Your task to perform on an android device: turn on priority inbox in the gmail app Image 0: 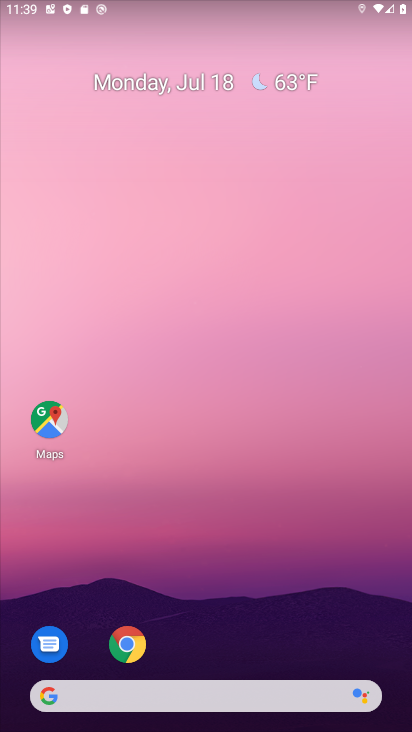
Step 0: drag from (220, 693) to (229, 183)
Your task to perform on an android device: turn on priority inbox in the gmail app Image 1: 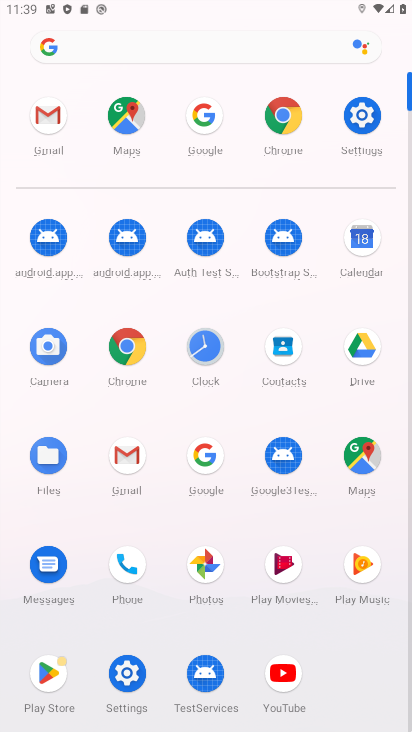
Step 1: click (123, 454)
Your task to perform on an android device: turn on priority inbox in the gmail app Image 2: 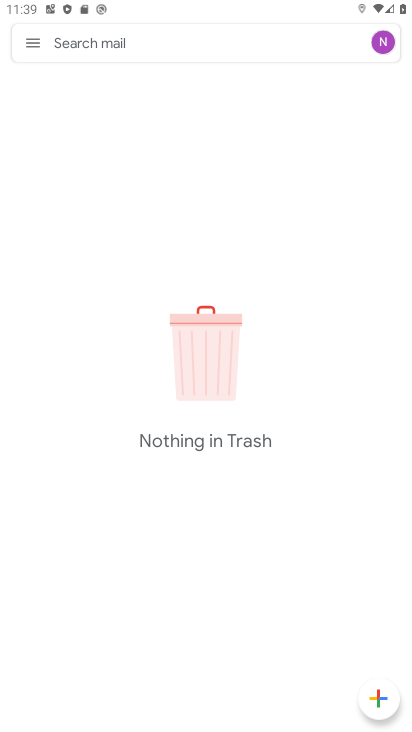
Step 2: click (32, 47)
Your task to perform on an android device: turn on priority inbox in the gmail app Image 3: 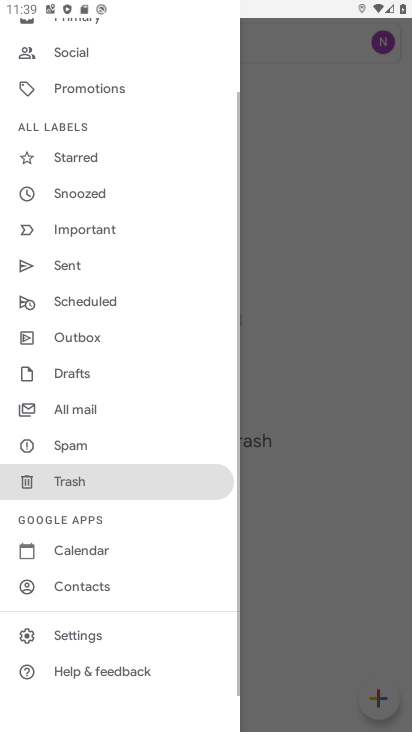
Step 3: click (88, 636)
Your task to perform on an android device: turn on priority inbox in the gmail app Image 4: 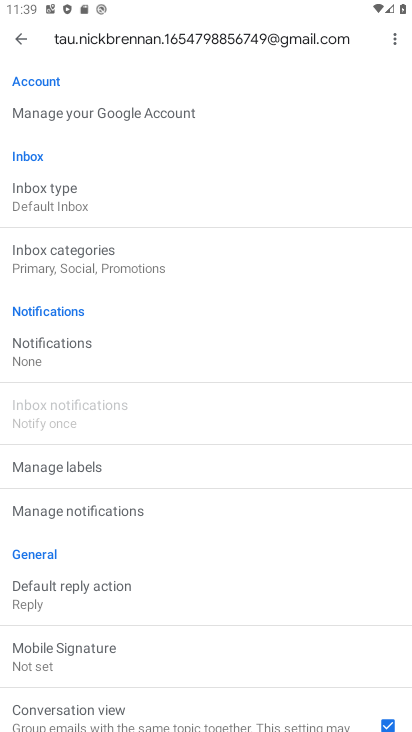
Step 4: click (55, 200)
Your task to perform on an android device: turn on priority inbox in the gmail app Image 5: 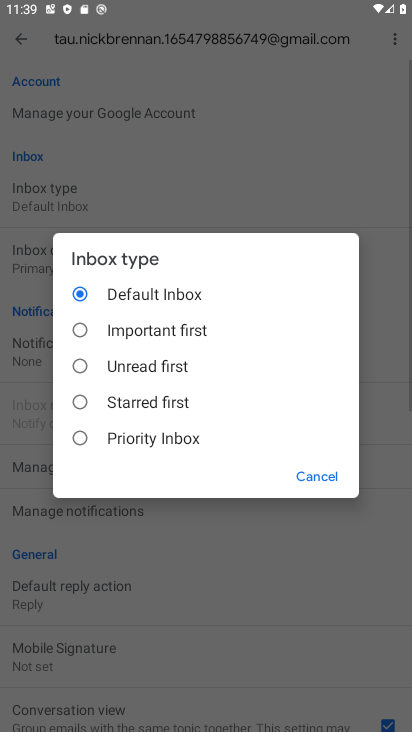
Step 5: click (78, 435)
Your task to perform on an android device: turn on priority inbox in the gmail app Image 6: 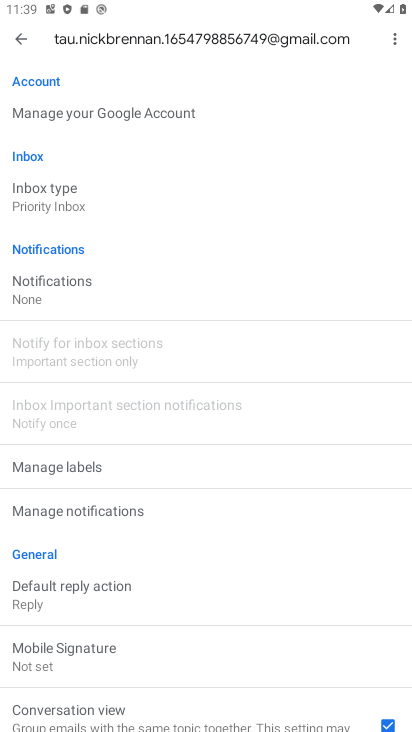
Step 6: task complete